Your task to perform on an android device: Go to Yahoo.com Image 0: 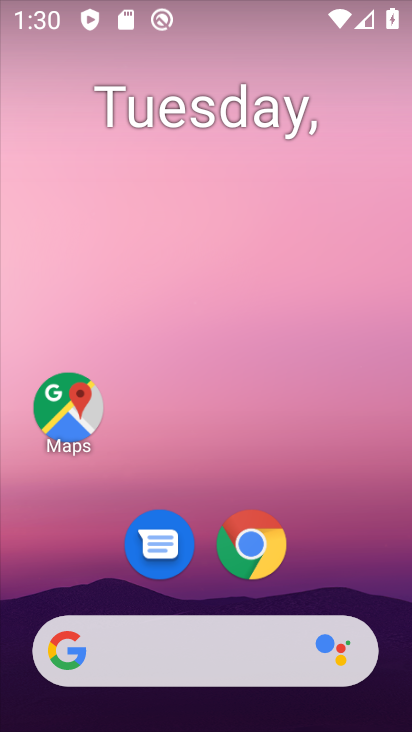
Step 0: click (272, 541)
Your task to perform on an android device: Go to Yahoo.com Image 1: 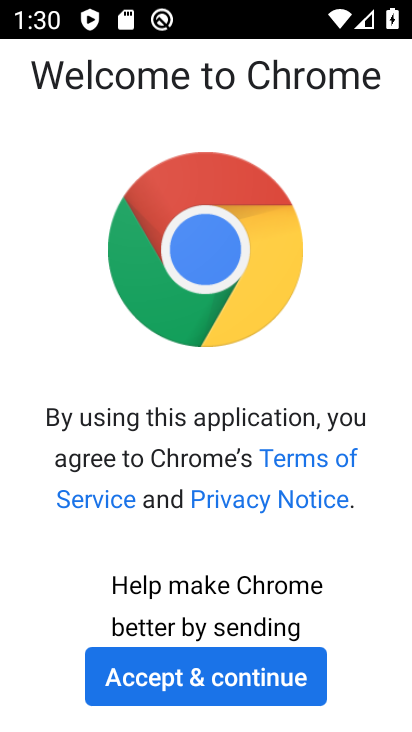
Step 1: click (199, 688)
Your task to perform on an android device: Go to Yahoo.com Image 2: 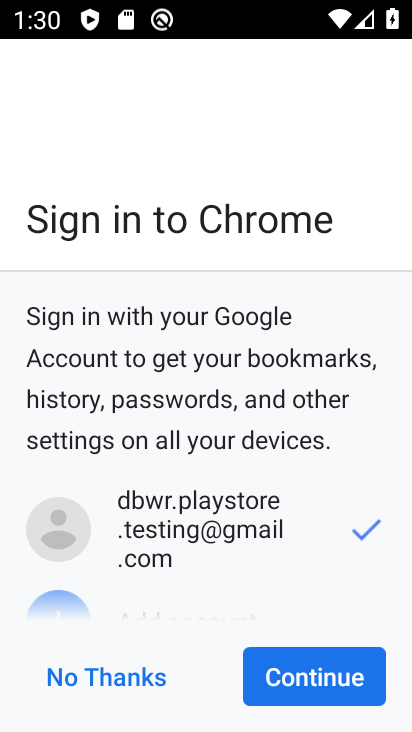
Step 2: click (295, 665)
Your task to perform on an android device: Go to Yahoo.com Image 3: 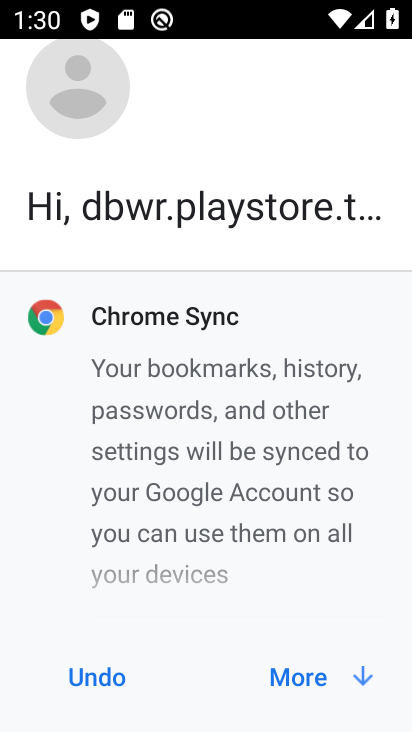
Step 3: click (295, 665)
Your task to perform on an android device: Go to Yahoo.com Image 4: 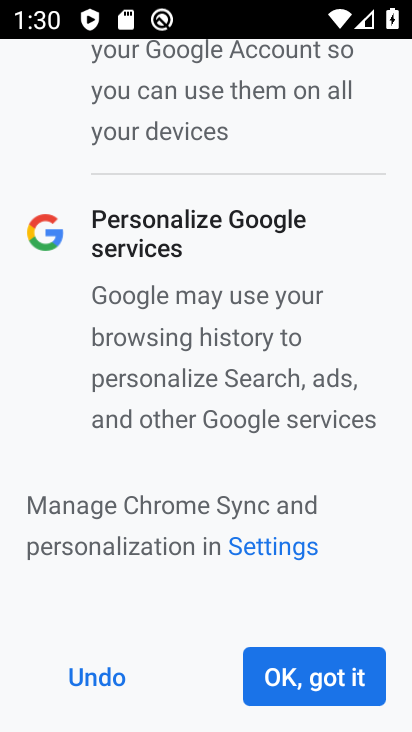
Step 4: click (295, 665)
Your task to perform on an android device: Go to Yahoo.com Image 5: 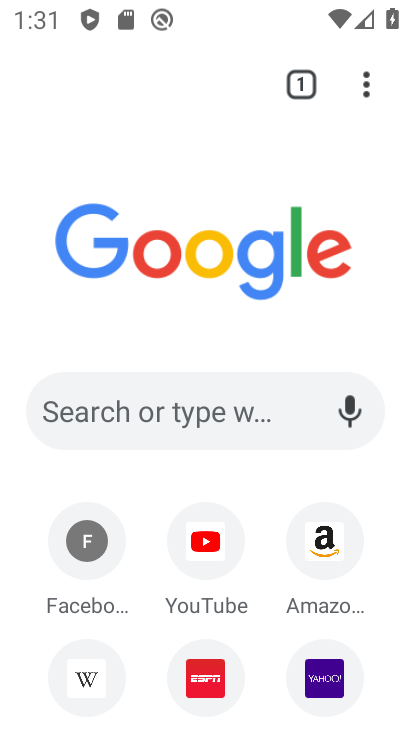
Step 5: click (328, 673)
Your task to perform on an android device: Go to Yahoo.com Image 6: 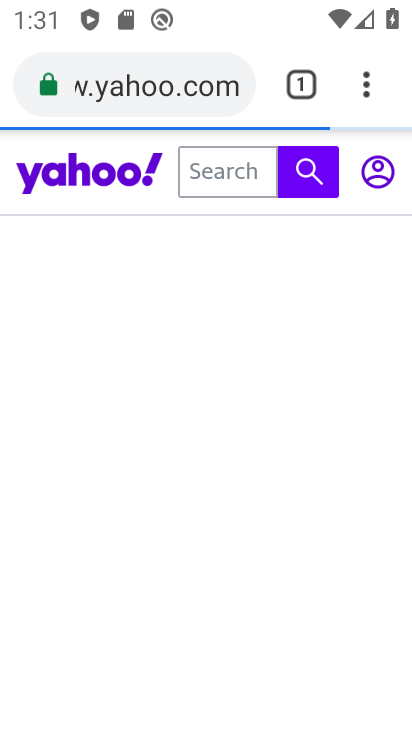
Step 6: task complete